Your task to perform on an android device: turn off priority inbox in the gmail app Image 0: 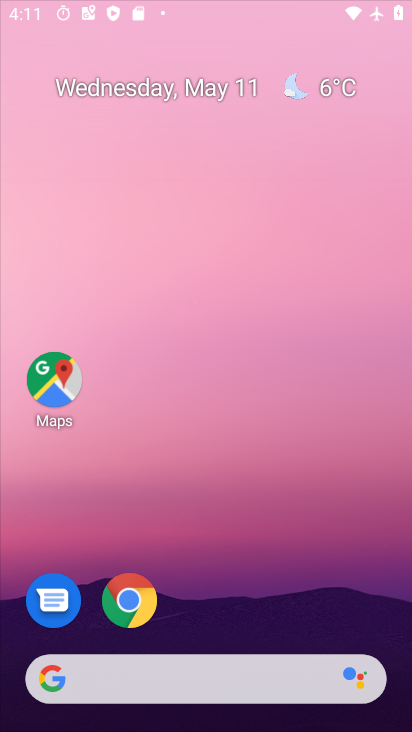
Step 0: click (296, 173)
Your task to perform on an android device: turn off priority inbox in the gmail app Image 1: 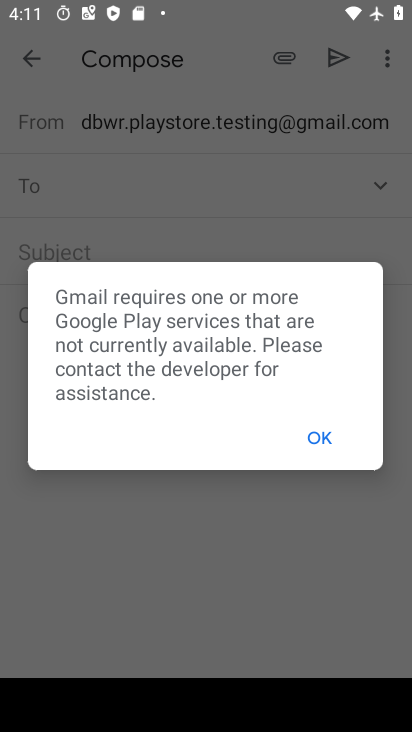
Step 1: click (329, 440)
Your task to perform on an android device: turn off priority inbox in the gmail app Image 2: 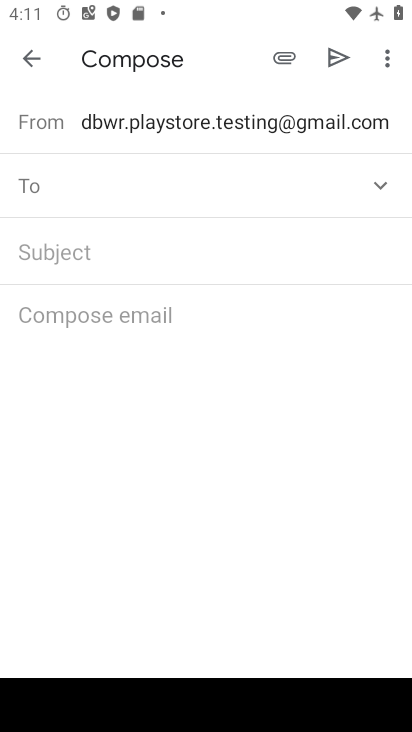
Step 2: click (23, 56)
Your task to perform on an android device: turn off priority inbox in the gmail app Image 3: 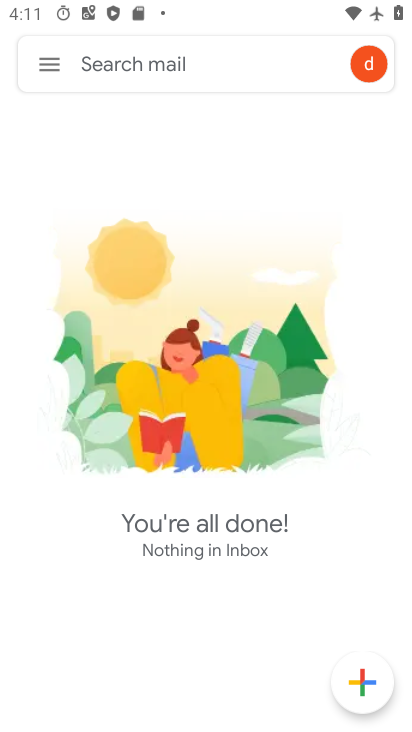
Step 3: click (53, 73)
Your task to perform on an android device: turn off priority inbox in the gmail app Image 4: 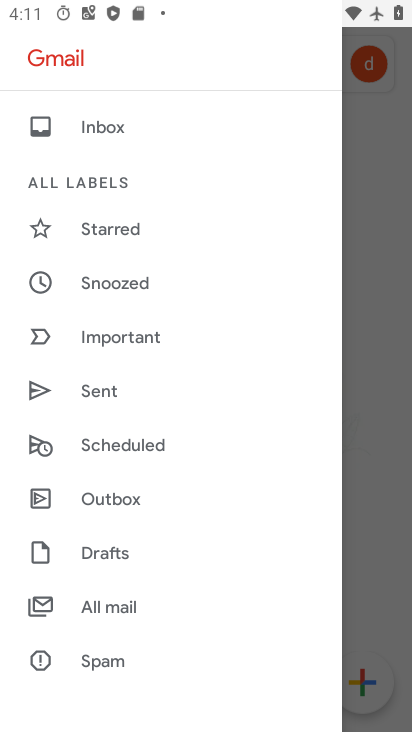
Step 4: drag from (121, 584) to (170, 55)
Your task to perform on an android device: turn off priority inbox in the gmail app Image 5: 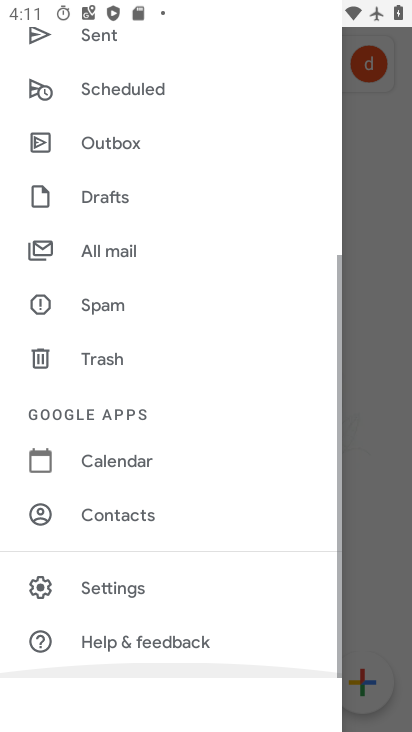
Step 5: drag from (155, 461) to (164, 72)
Your task to perform on an android device: turn off priority inbox in the gmail app Image 6: 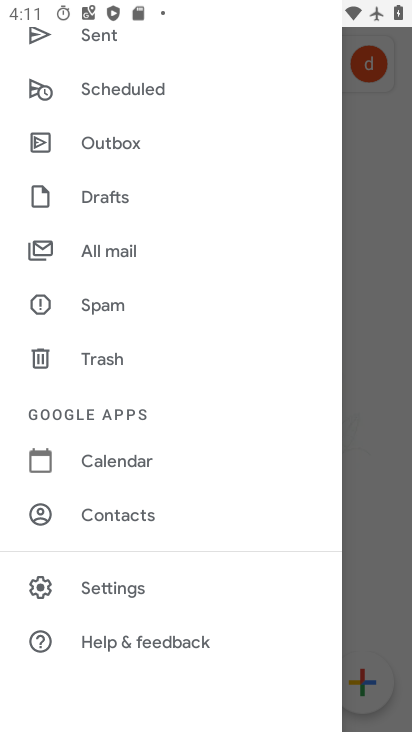
Step 6: click (101, 593)
Your task to perform on an android device: turn off priority inbox in the gmail app Image 7: 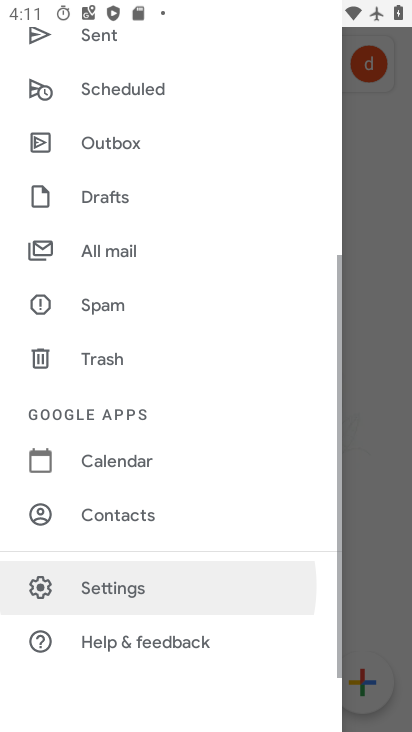
Step 7: click (104, 591)
Your task to perform on an android device: turn off priority inbox in the gmail app Image 8: 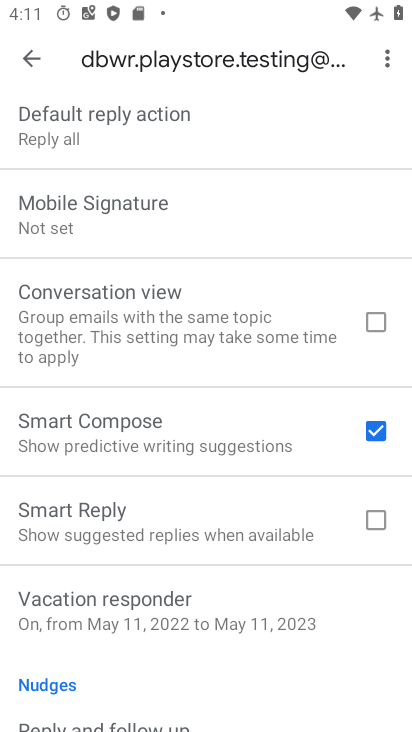
Step 8: drag from (134, 571) to (181, 172)
Your task to perform on an android device: turn off priority inbox in the gmail app Image 9: 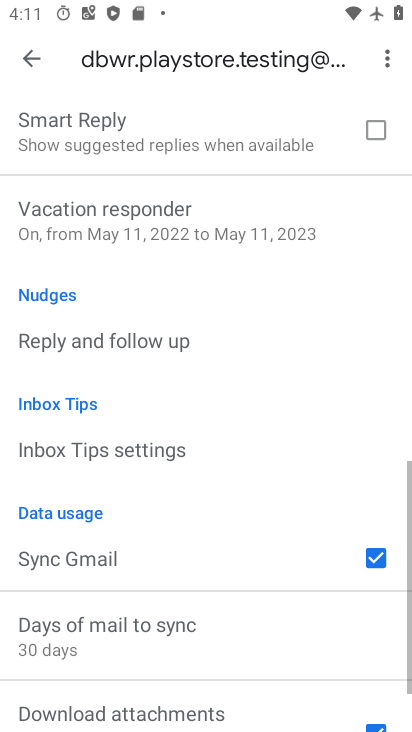
Step 9: drag from (207, 514) to (183, 133)
Your task to perform on an android device: turn off priority inbox in the gmail app Image 10: 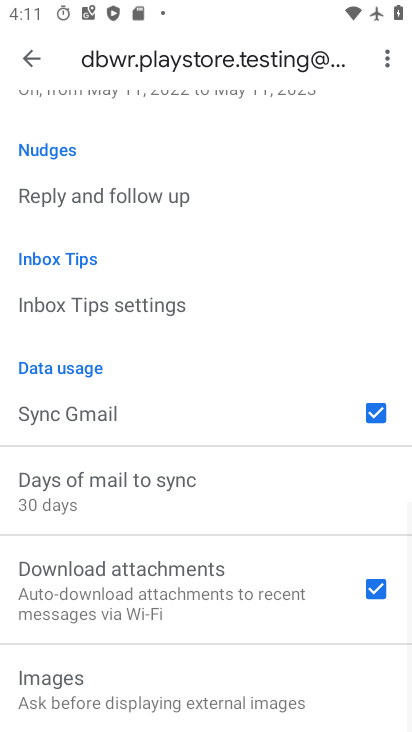
Step 10: drag from (128, 295) to (132, 645)
Your task to perform on an android device: turn off priority inbox in the gmail app Image 11: 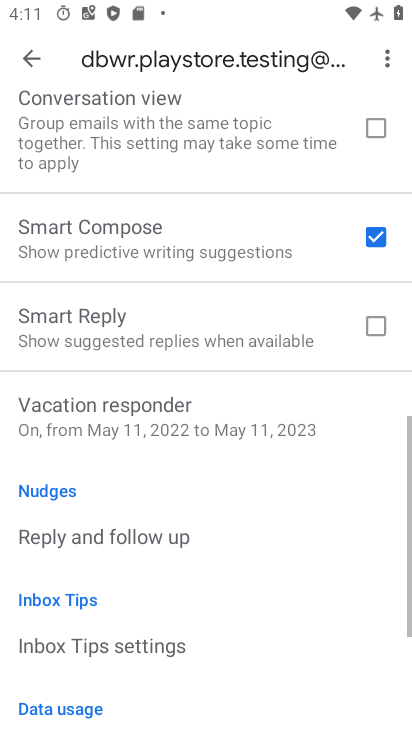
Step 11: drag from (145, 370) to (184, 524)
Your task to perform on an android device: turn off priority inbox in the gmail app Image 12: 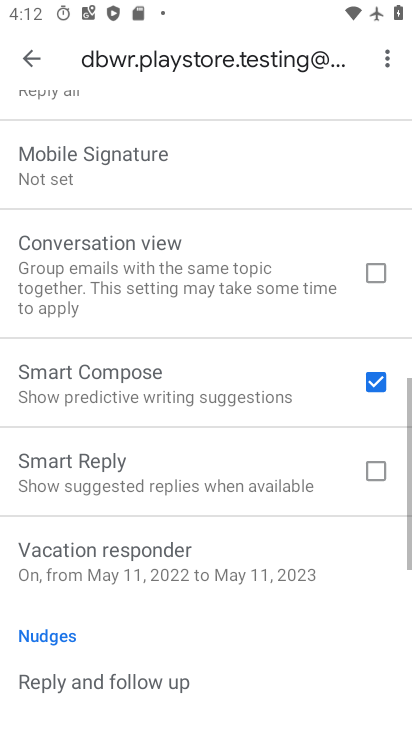
Step 12: drag from (158, 401) to (173, 597)
Your task to perform on an android device: turn off priority inbox in the gmail app Image 13: 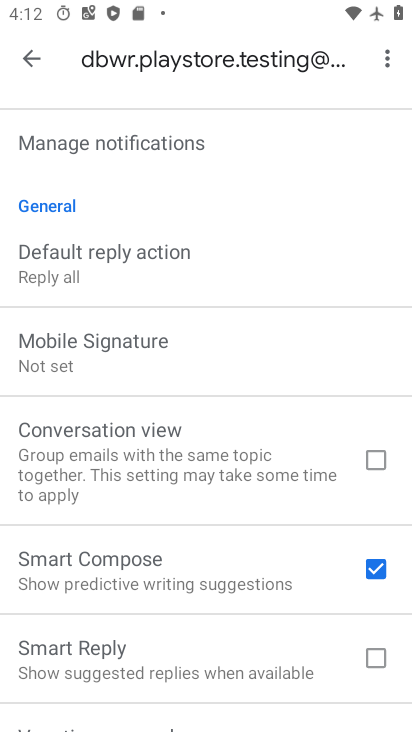
Step 13: drag from (134, 615) to (143, 192)
Your task to perform on an android device: turn off priority inbox in the gmail app Image 14: 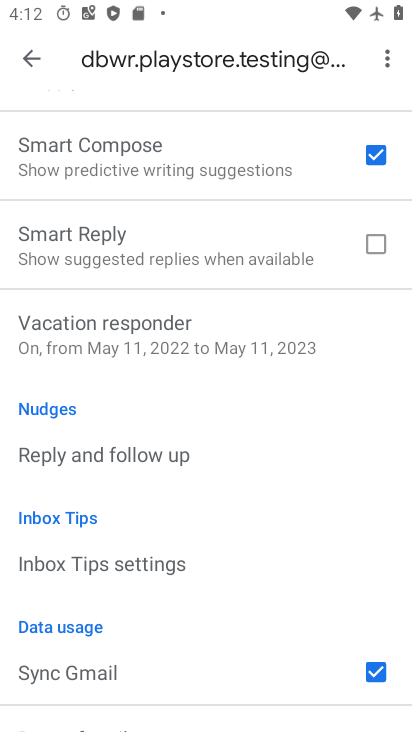
Step 14: drag from (98, 85) to (145, 638)
Your task to perform on an android device: turn off priority inbox in the gmail app Image 15: 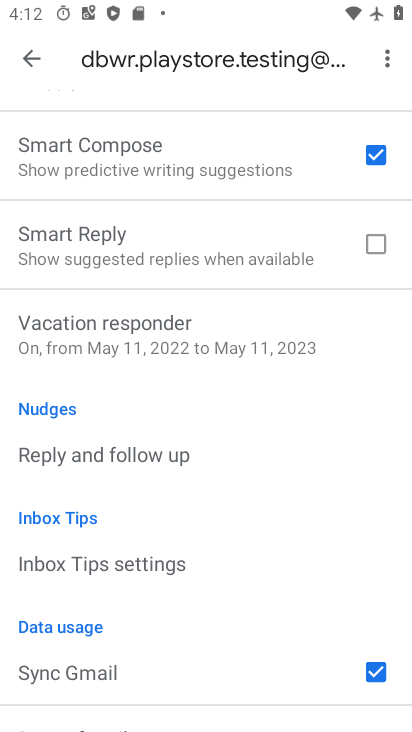
Step 15: drag from (114, 241) to (242, 644)
Your task to perform on an android device: turn off priority inbox in the gmail app Image 16: 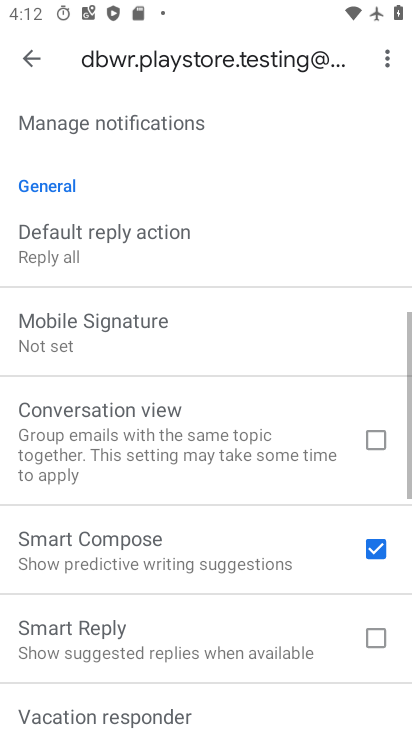
Step 16: drag from (150, 255) to (167, 644)
Your task to perform on an android device: turn off priority inbox in the gmail app Image 17: 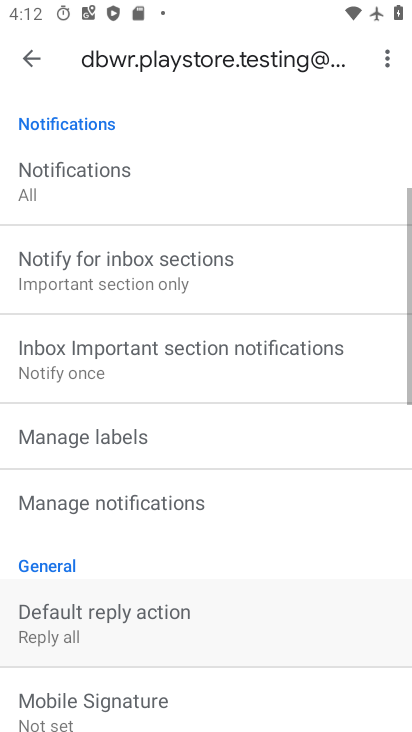
Step 17: drag from (175, 303) to (101, 718)
Your task to perform on an android device: turn off priority inbox in the gmail app Image 18: 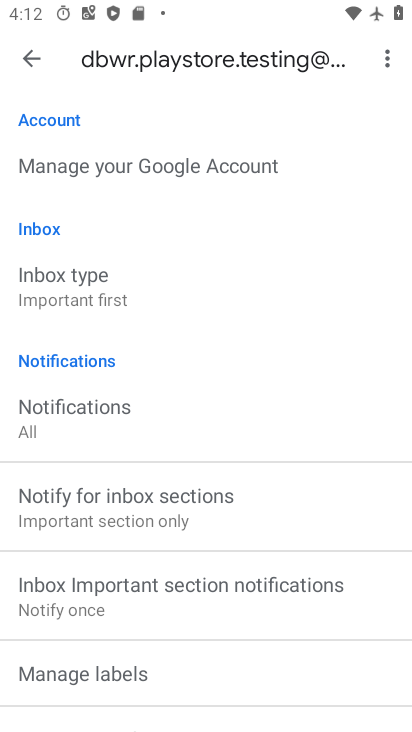
Step 18: click (50, 285)
Your task to perform on an android device: turn off priority inbox in the gmail app Image 19: 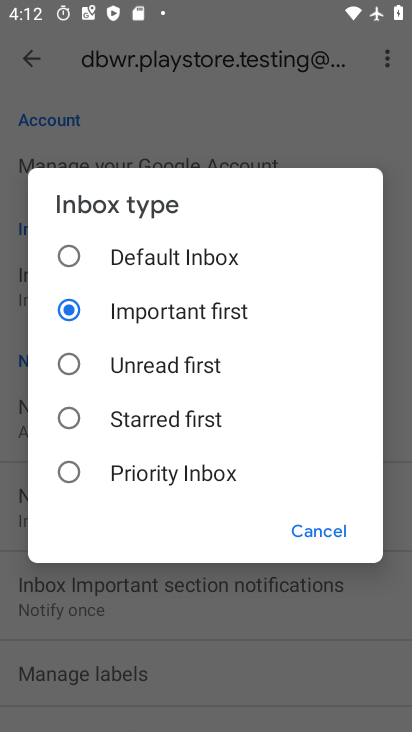
Step 19: click (70, 467)
Your task to perform on an android device: turn off priority inbox in the gmail app Image 20: 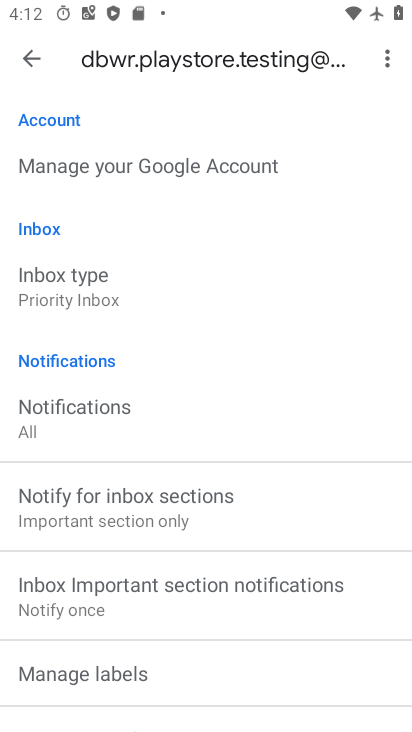
Step 20: task complete